Your task to perform on an android device: snooze an email in the gmail app Image 0: 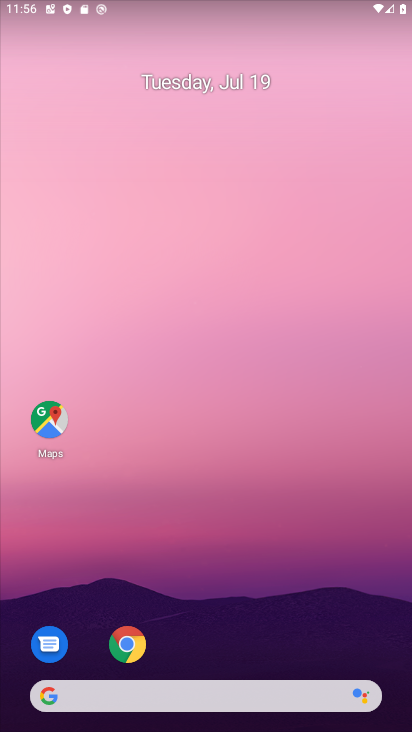
Step 0: press home button
Your task to perform on an android device: snooze an email in the gmail app Image 1: 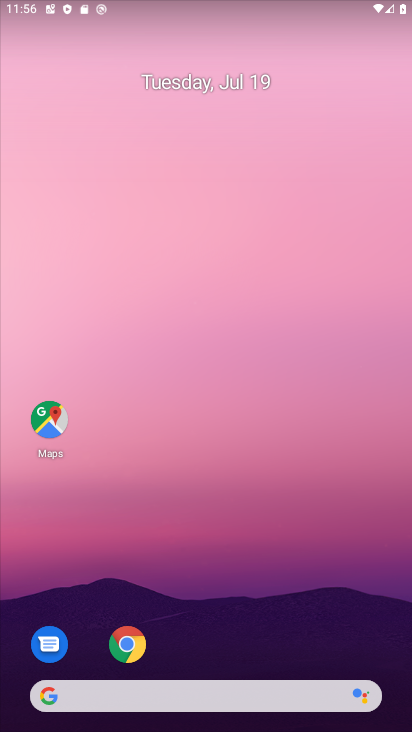
Step 1: drag from (271, 631) to (390, 53)
Your task to perform on an android device: snooze an email in the gmail app Image 2: 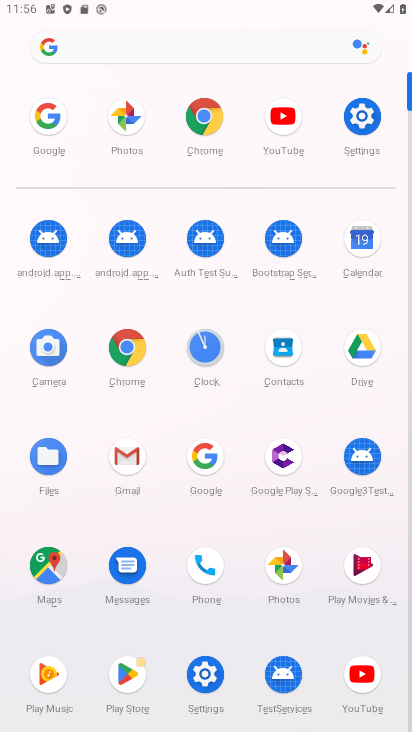
Step 2: click (154, 463)
Your task to perform on an android device: snooze an email in the gmail app Image 3: 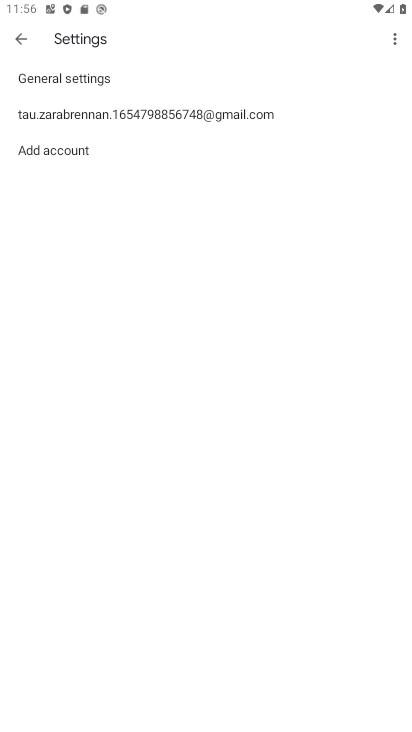
Step 3: click (23, 37)
Your task to perform on an android device: snooze an email in the gmail app Image 4: 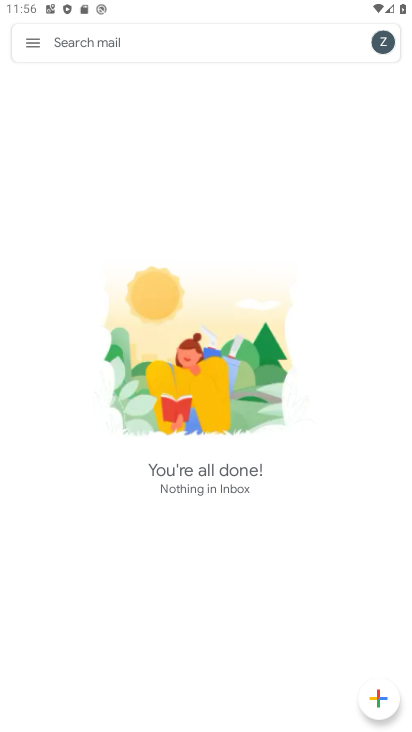
Step 4: click (23, 37)
Your task to perform on an android device: snooze an email in the gmail app Image 5: 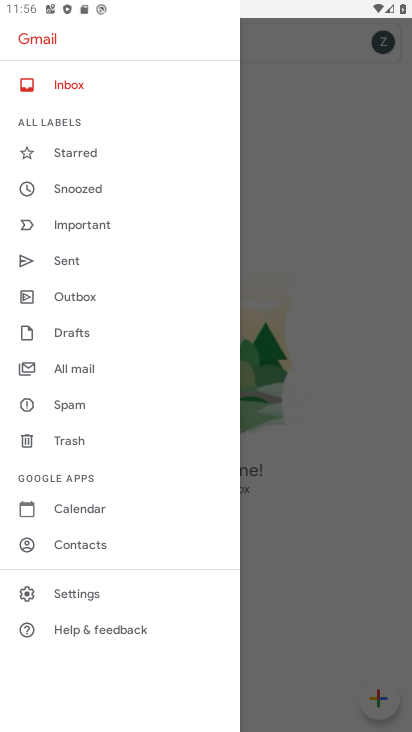
Step 5: click (402, 156)
Your task to perform on an android device: snooze an email in the gmail app Image 6: 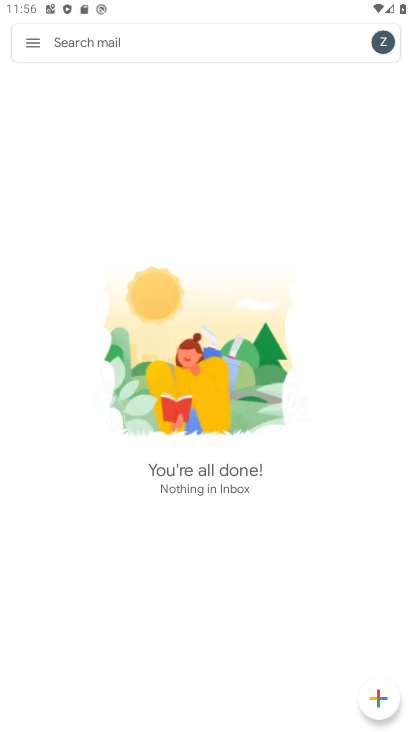
Step 6: task complete